Your task to perform on an android device: toggle notifications settings in the gmail app Image 0: 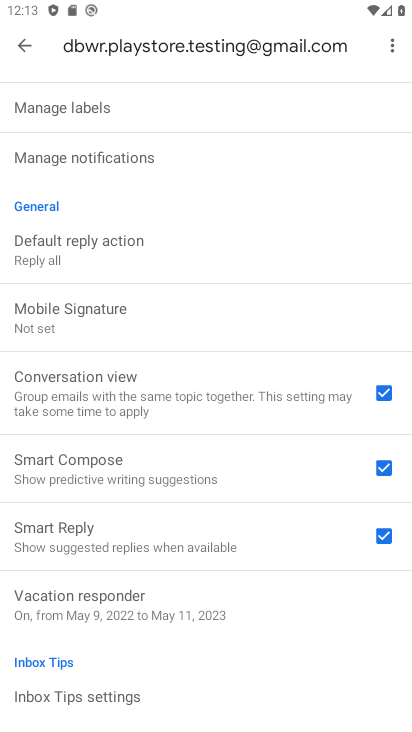
Step 0: press home button
Your task to perform on an android device: toggle notifications settings in the gmail app Image 1: 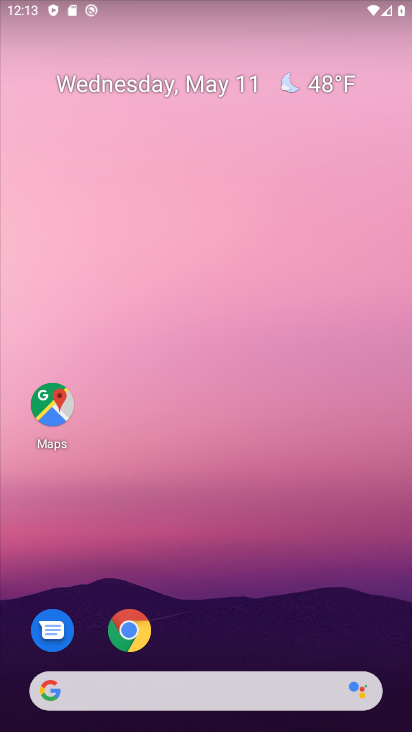
Step 1: drag from (194, 660) to (201, 9)
Your task to perform on an android device: toggle notifications settings in the gmail app Image 2: 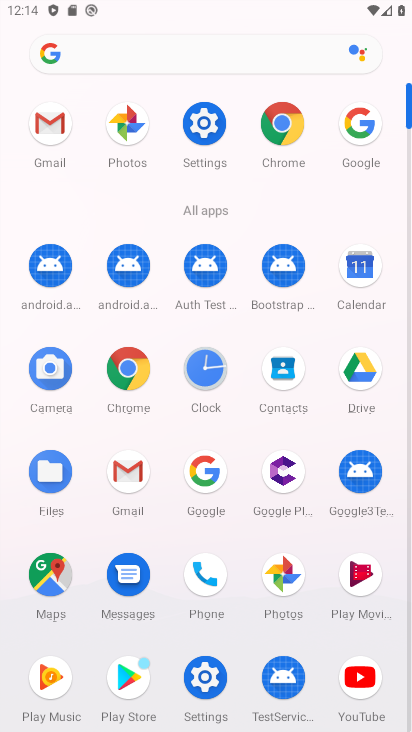
Step 2: click (131, 490)
Your task to perform on an android device: toggle notifications settings in the gmail app Image 3: 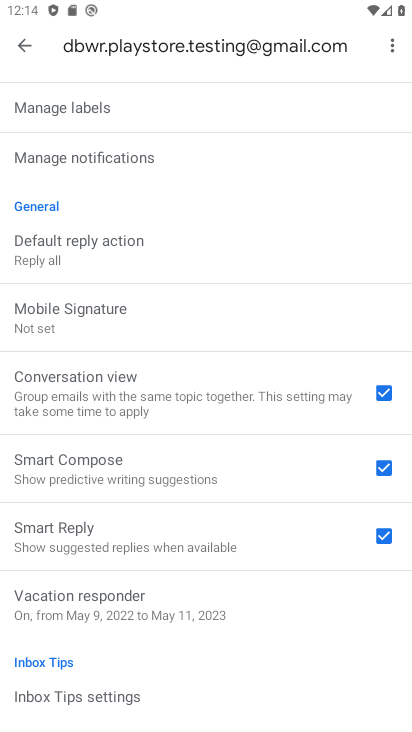
Step 3: click (16, 50)
Your task to perform on an android device: toggle notifications settings in the gmail app Image 4: 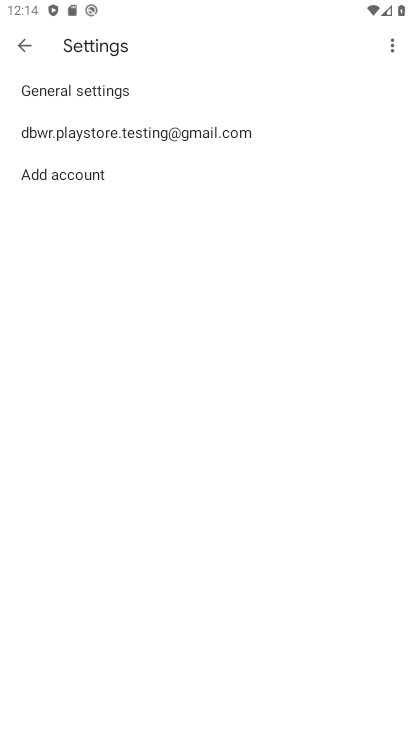
Step 4: click (79, 96)
Your task to perform on an android device: toggle notifications settings in the gmail app Image 5: 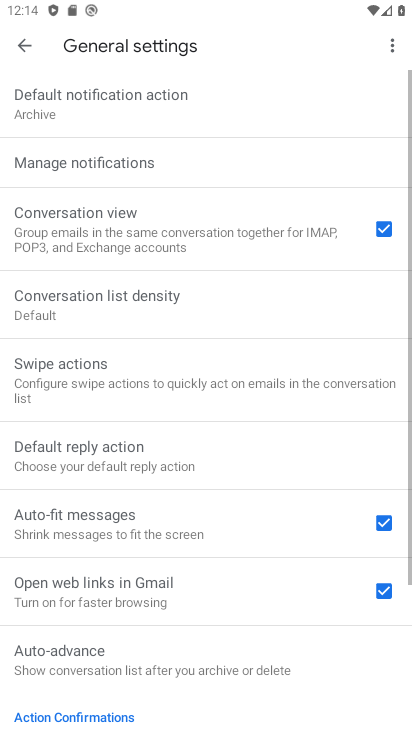
Step 5: click (156, 170)
Your task to perform on an android device: toggle notifications settings in the gmail app Image 6: 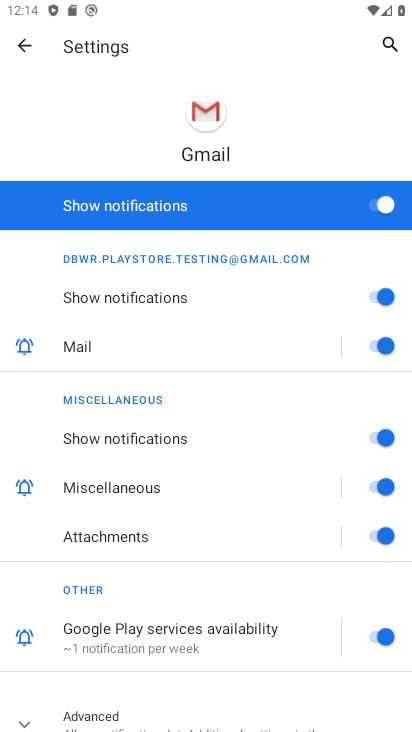
Step 6: click (379, 196)
Your task to perform on an android device: toggle notifications settings in the gmail app Image 7: 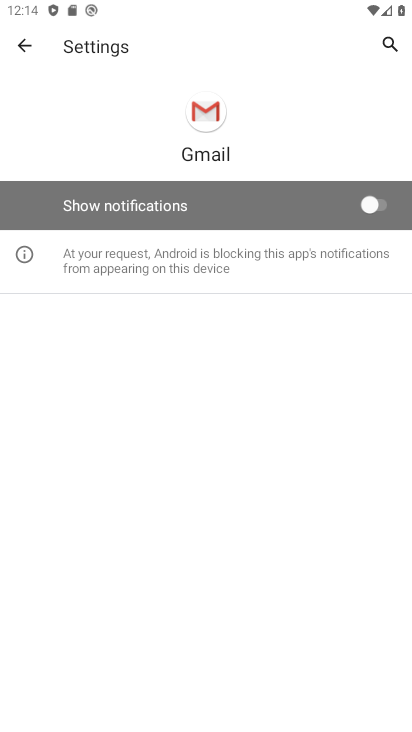
Step 7: task complete